Your task to perform on an android device: allow notifications from all sites in the chrome app Image 0: 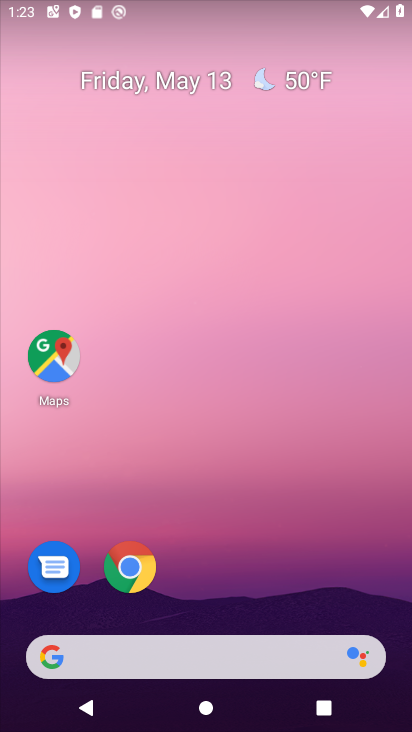
Step 0: press home button
Your task to perform on an android device: allow notifications from all sites in the chrome app Image 1: 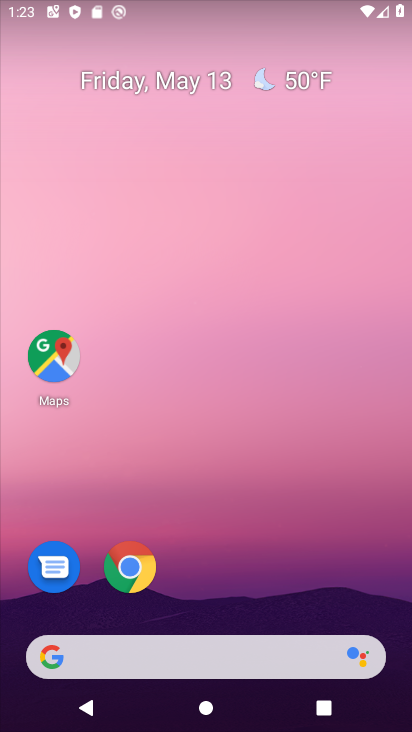
Step 1: click (136, 572)
Your task to perform on an android device: allow notifications from all sites in the chrome app Image 2: 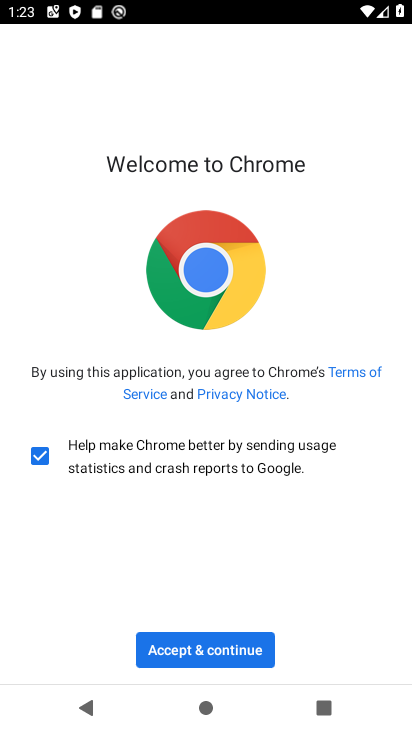
Step 2: click (217, 664)
Your task to perform on an android device: allow notifications from all sites in the chrome app Image 3: 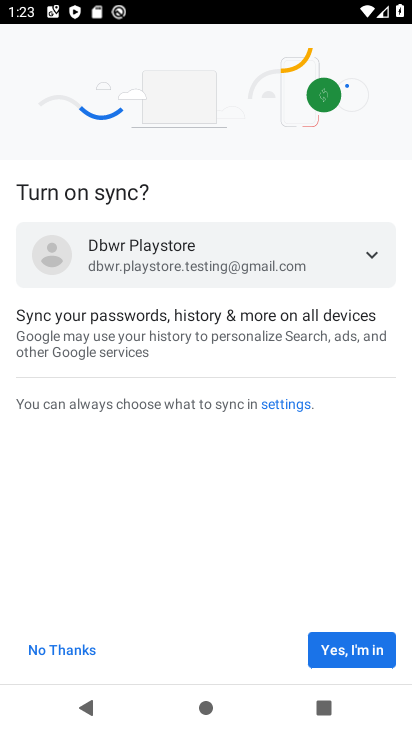
Step 3: click (338, 654)
Your task to perform on an android device: allow notifications from all sites in the chrome app Image 4: 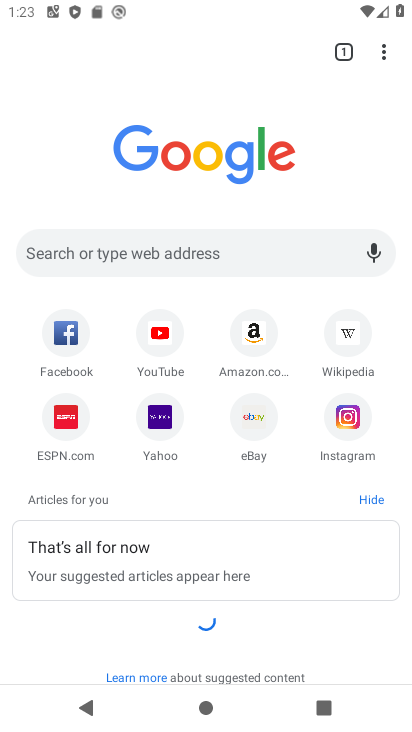
Step 4: click (387, 50)
Your task to perform on an android device: allow notifications from all sites in the chrome app Image 5: 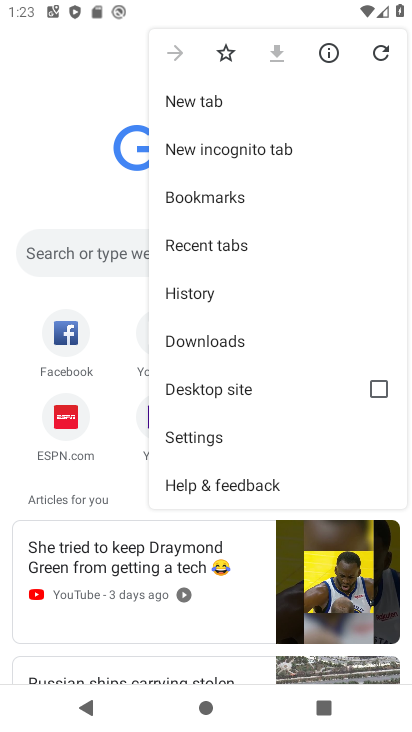
Step 5: click (217, 437)
Your task to perform on an android device: allow notifications from all sites in the chrome app Image 6: 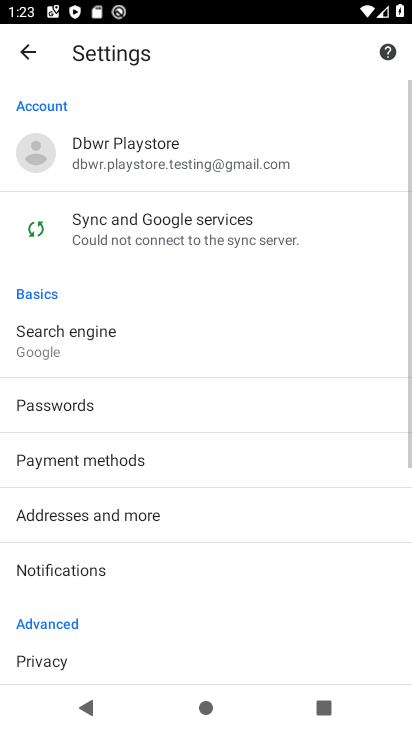
Step 6: drag from (157, 633) to (162, 301)
Your task to perform on an android device: allow notifications from all sites in the chrome app Image 7: 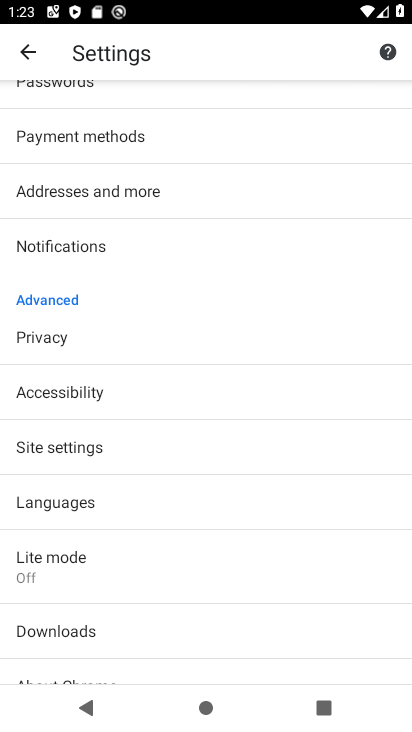
Step 7: click (57, 445)
Your task to perform on an android device: allow notifications from all sites in the chrome app Image 8: 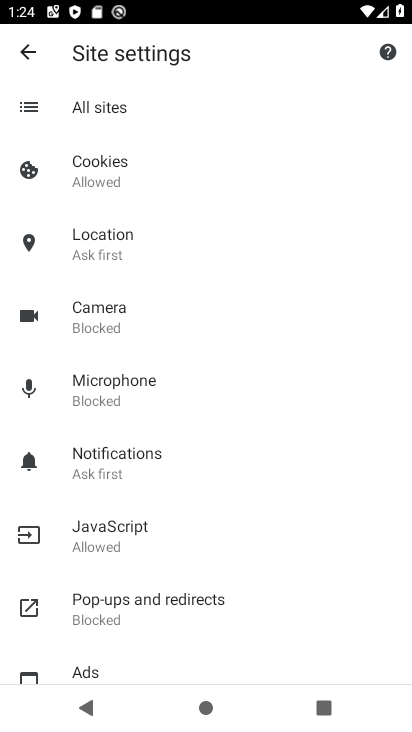
Step 8: click (100, 458)
Your task to perform on an android device: allow notifications from all sites in the chrome app Image 9: 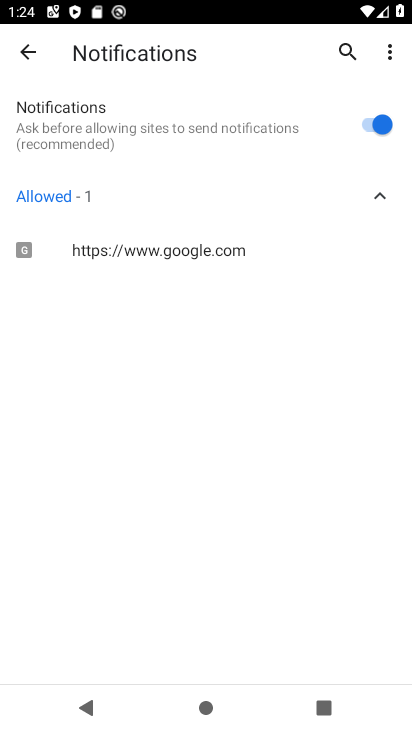
Step 9: task complete